Your task to perform on an android device: Open eBay Image 0: 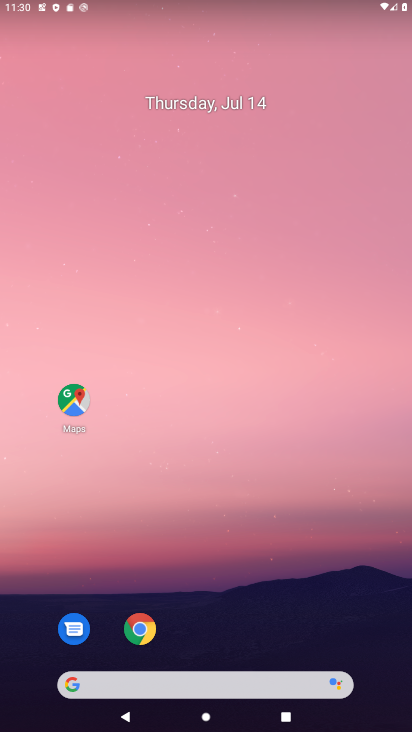
Step 0: click (78, 688)
Your task to perform on an android device: Open eBay Image 1: 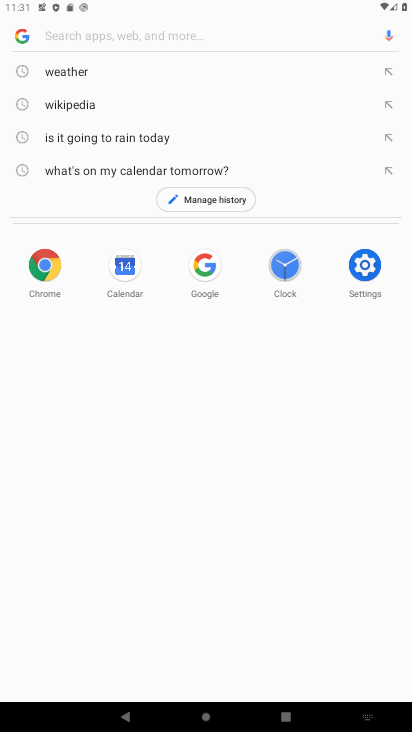
Step 1: type "eBay"
Your task to perform on an android device: Open eBay Image 2: 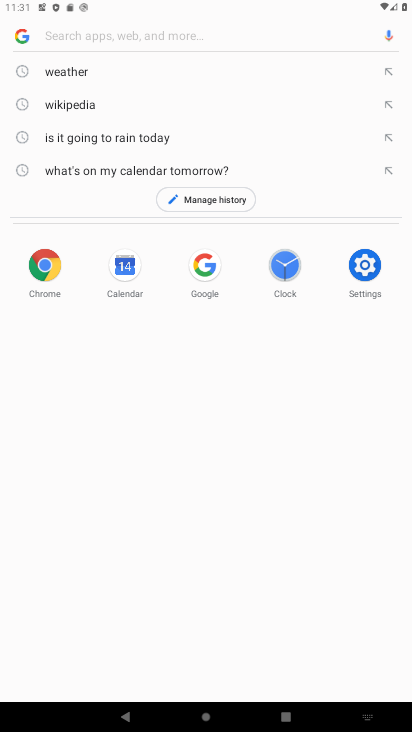
Step 2: click (74, 33)
Your task to perform on an android device: Open eBay Image 3: 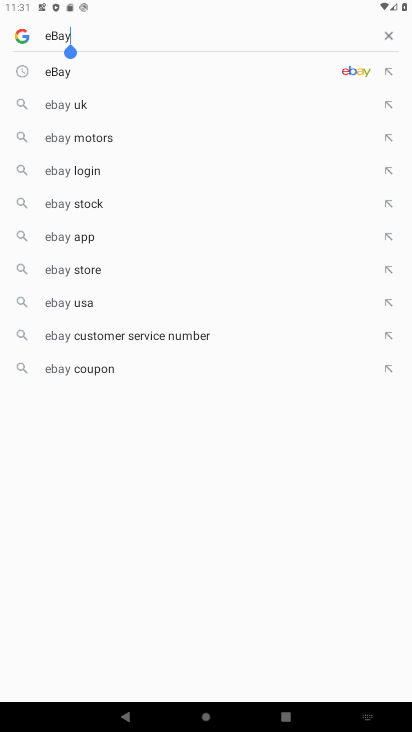
Step 3: press enter
Your task to perform on an android device: Open eBay Image 4: 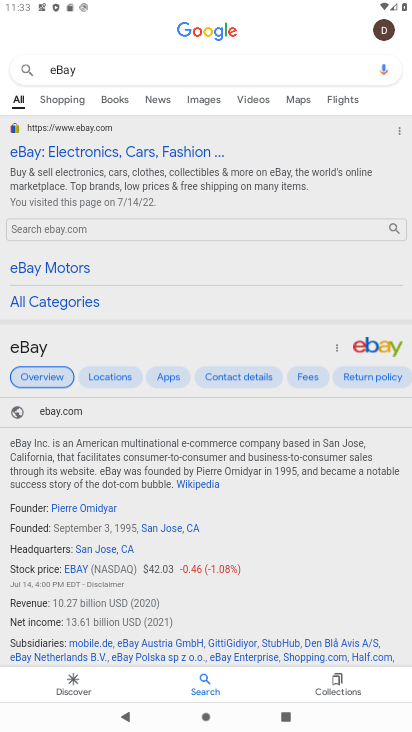
Step 4: click (35, 350)
Your task to perform on an android device: Open eBay Image 5: 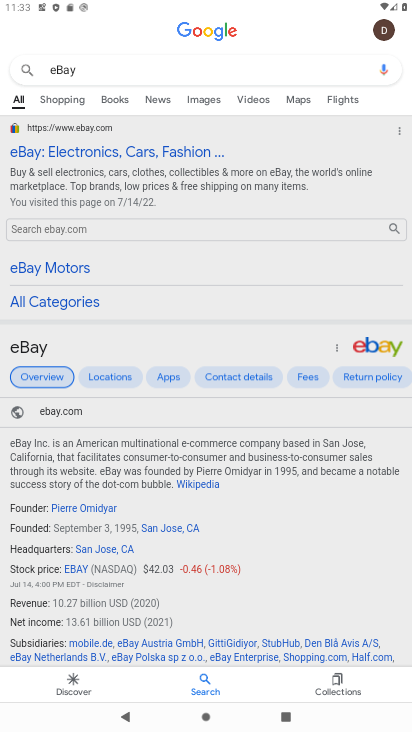
Step 5: click (54, 409)
Your task to perform on an android device: Open eBay Image 6: 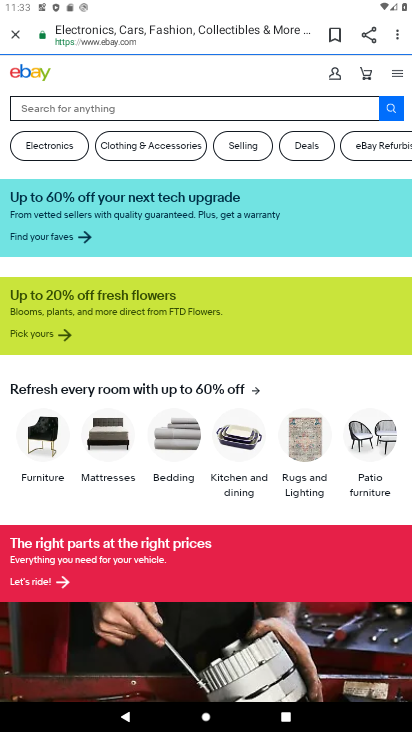
Step 6: task complete